Your task to perform on an android device: change the upload size in google photos Image 0: 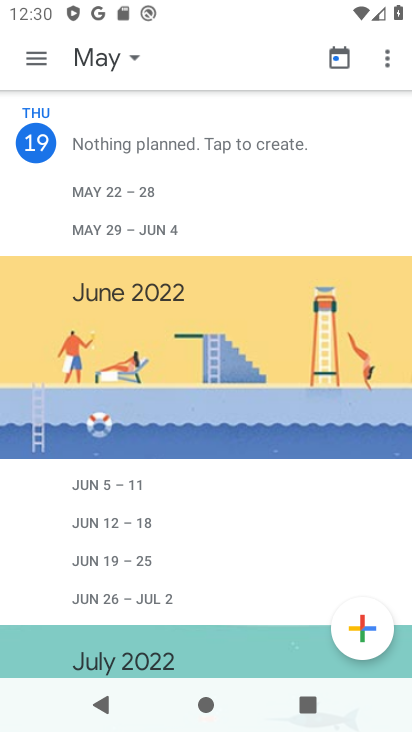
Step 0: press home button
Your task to perform on an android device: change the upload size in google photos Image 1: 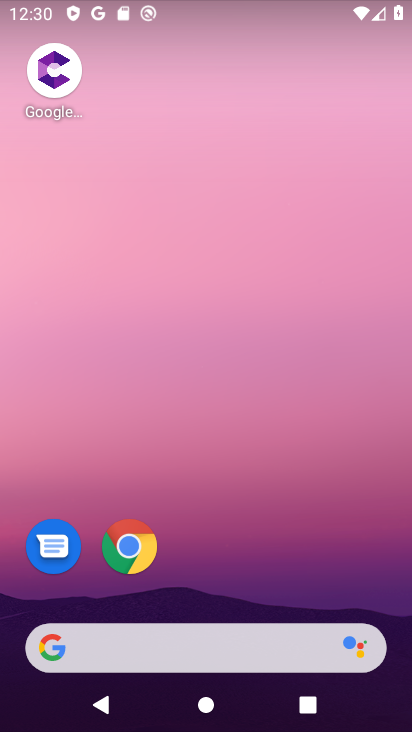
Step 1: drag from (269, 599) to (251, 10)
Your task to perform on an android device: change the upload size in google photos Image 2: 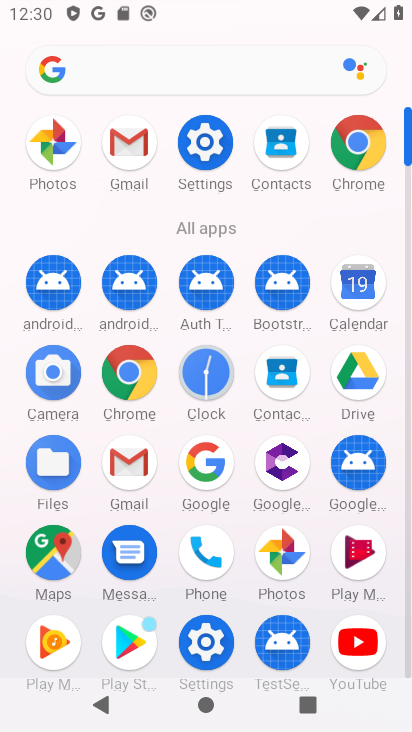
Step 2: click (290, 559)
Your task to perform on an android device: change the upload size in google photos Image 3: 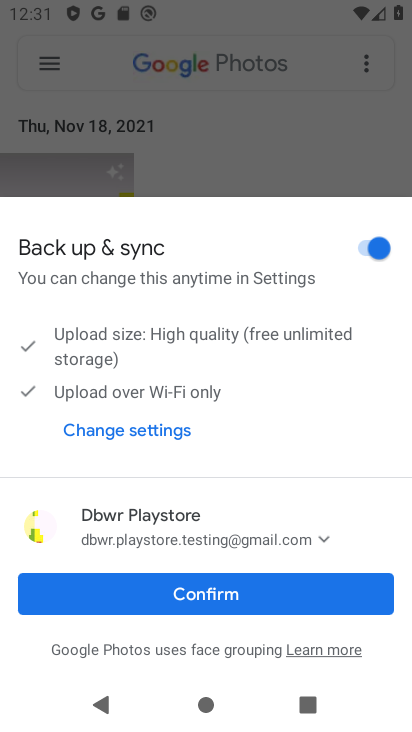
Step 3: click (256, 601)
Your task to perform on an android device: change the upload size in google photos Image 4: 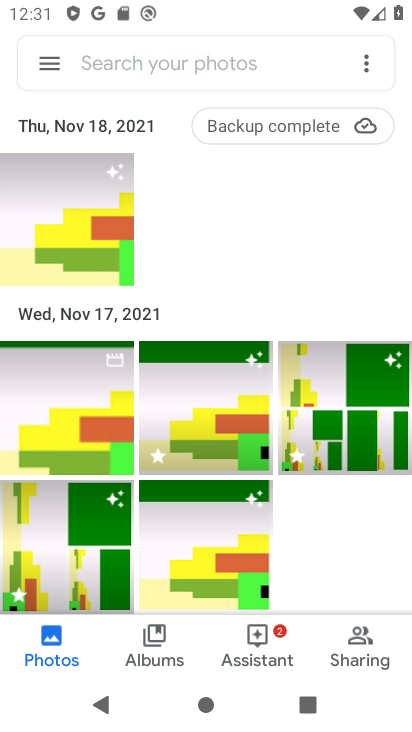
Step 4: click (42, 68)
Your task to perform on an android device: change the upload size in google photos Image 5: 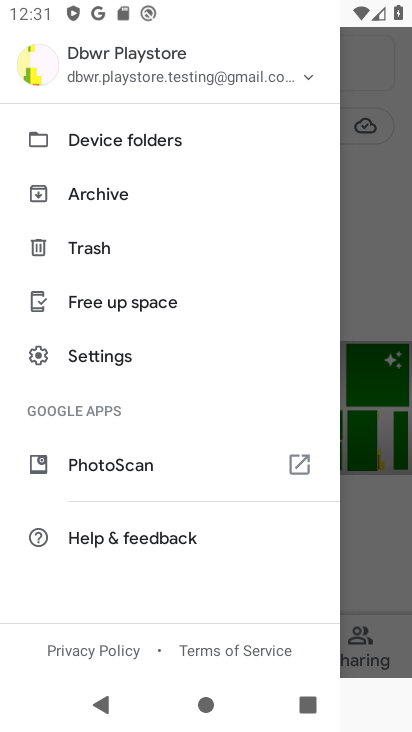
Step 5: click (125, 355)
Your task to perform on an android device: change the upload size in google photos Image 6: 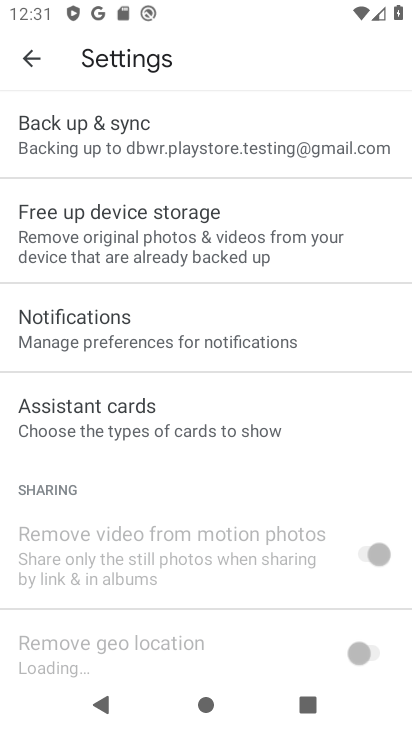
Step 6: click (85, 131)
Your task to perform on an android device: change the upload size in google photos Image 7: 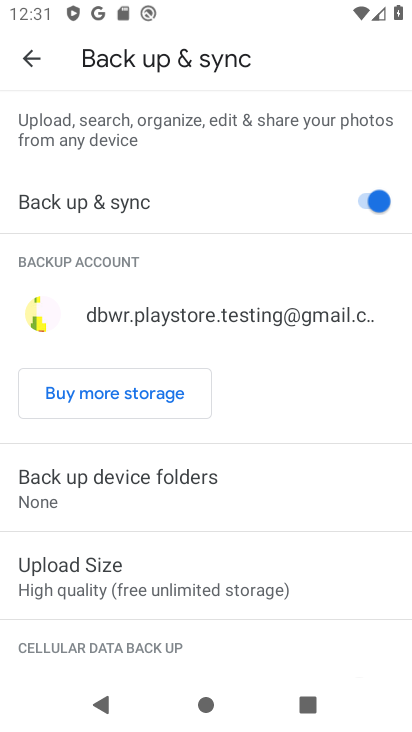
Step 7: click (171, 591)
Your task to perform on an android device: change the upload size in google photos Image 8: 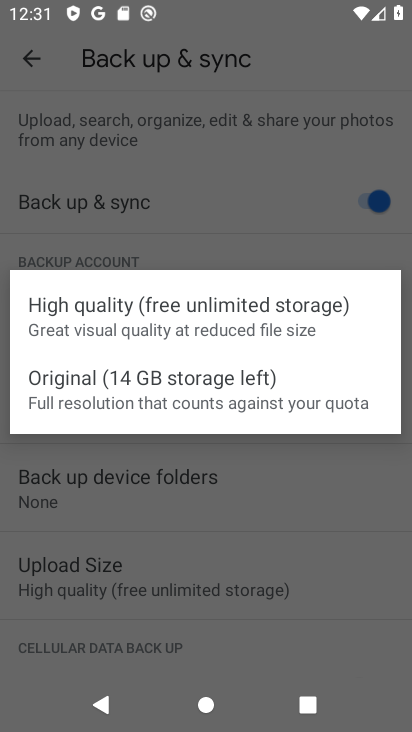
Step 8: click (158, 372)
Your task to perform on an android device: change the upload size in google photos Image 9: 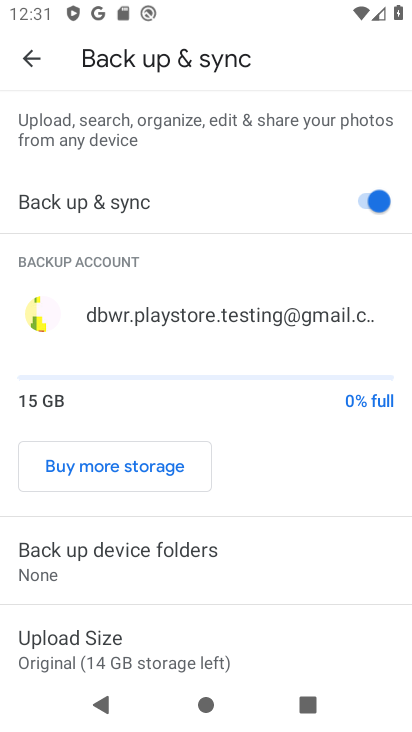
Step 9: task complete